Your task to perform on an android device: Add "lenovo thinkpad" to the cart on target.com Image 0: 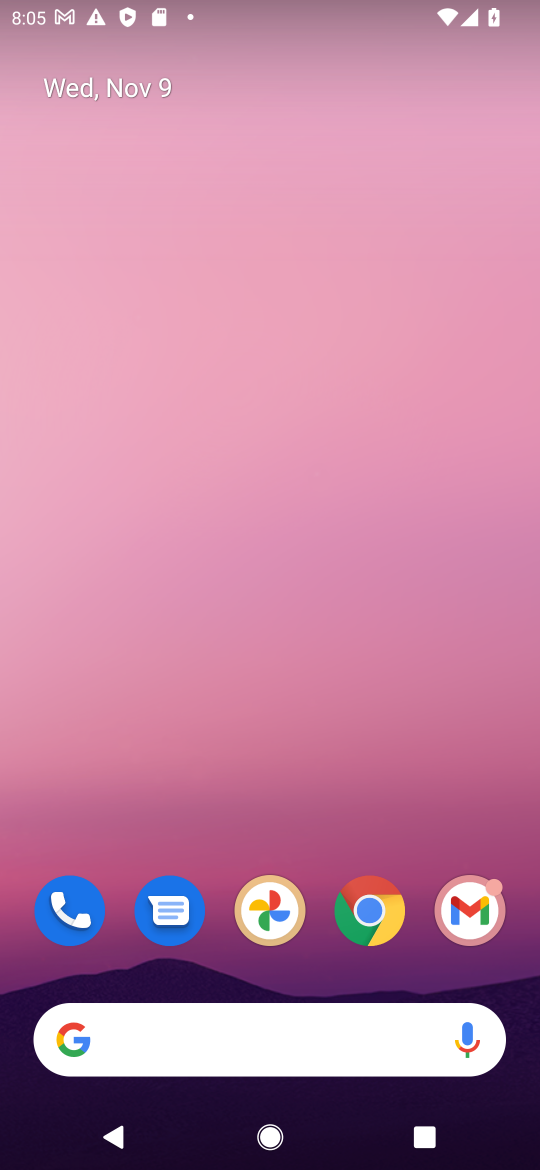
Step 0: click (373, 918)
Your task to perform on an android device: Add "lenovo thinkpad" to the cart on target.com Image 1: 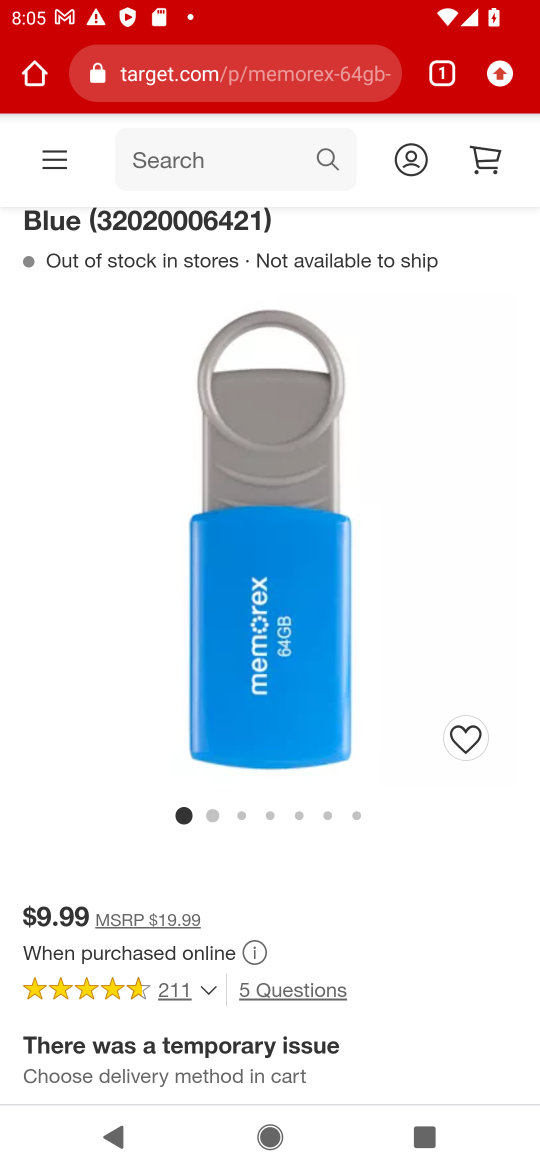
Step 1: click (326, 163)
Your task to perform on an android device: Add "lenovo thinkpad" to the cart on target.com Image 2: 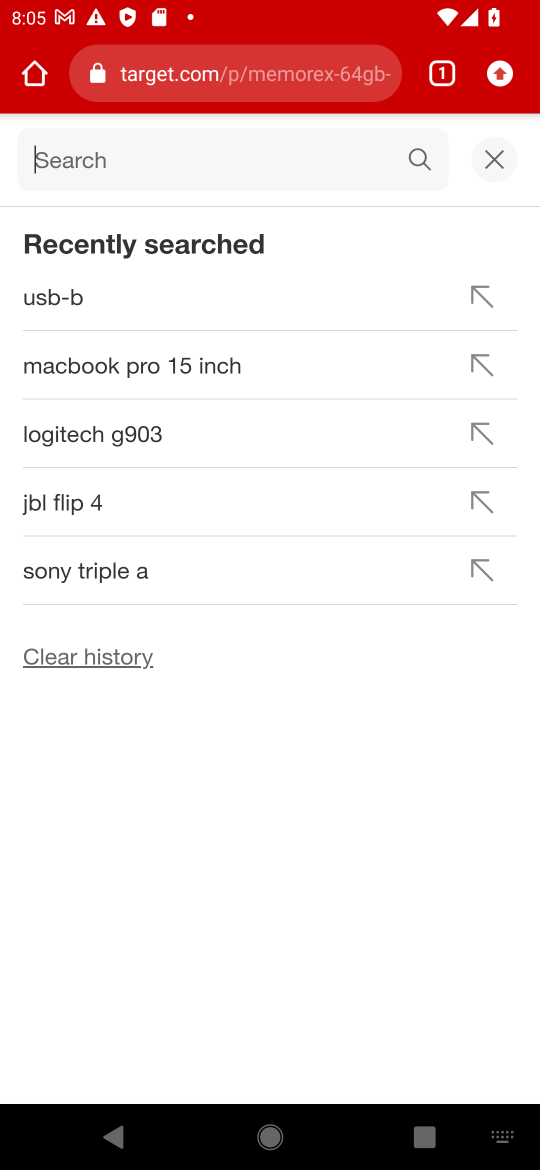
Step 2: type "lenovo thinkpad"
Your task to perform on an android device: Add "lenovo thinkpad" to the cart on target.com Image 3: 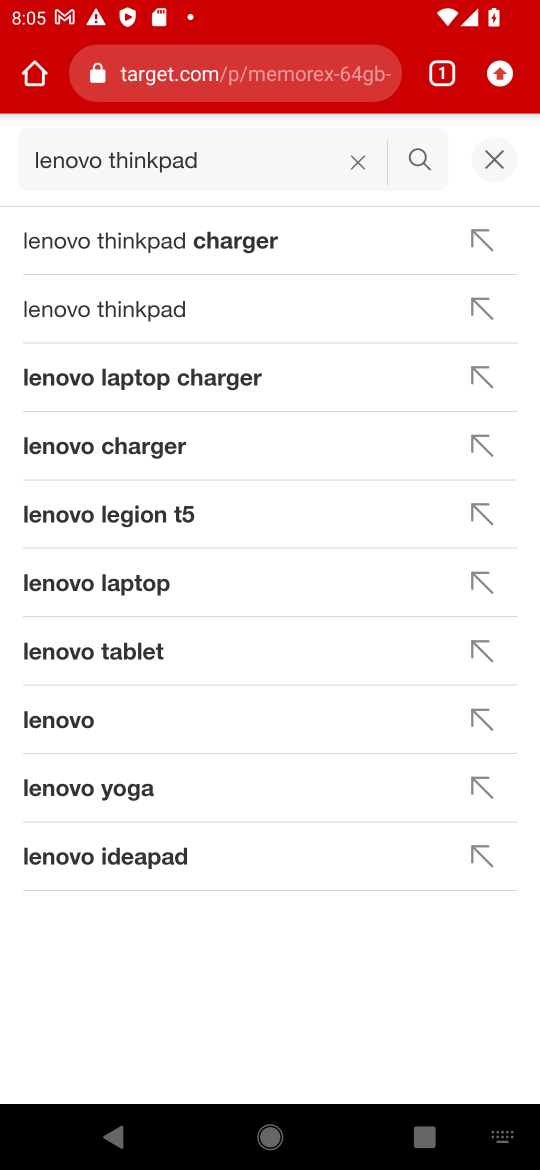
Step 3: click (137, 318)
Your task to perform on an android device: Add "lenovo thinkpad" to the cart on target.com Image 4: 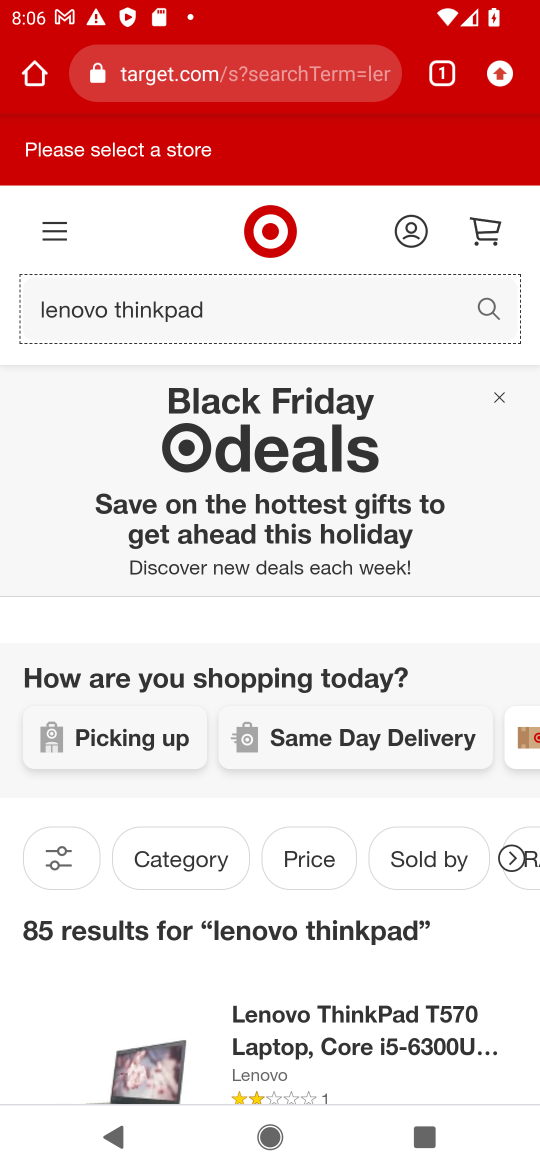
Step 4: drag from (174, 831) to (183, 435)
Your task to perform on an android device: Add "lenovo thinkpad" to the cart on target.com Image 5: 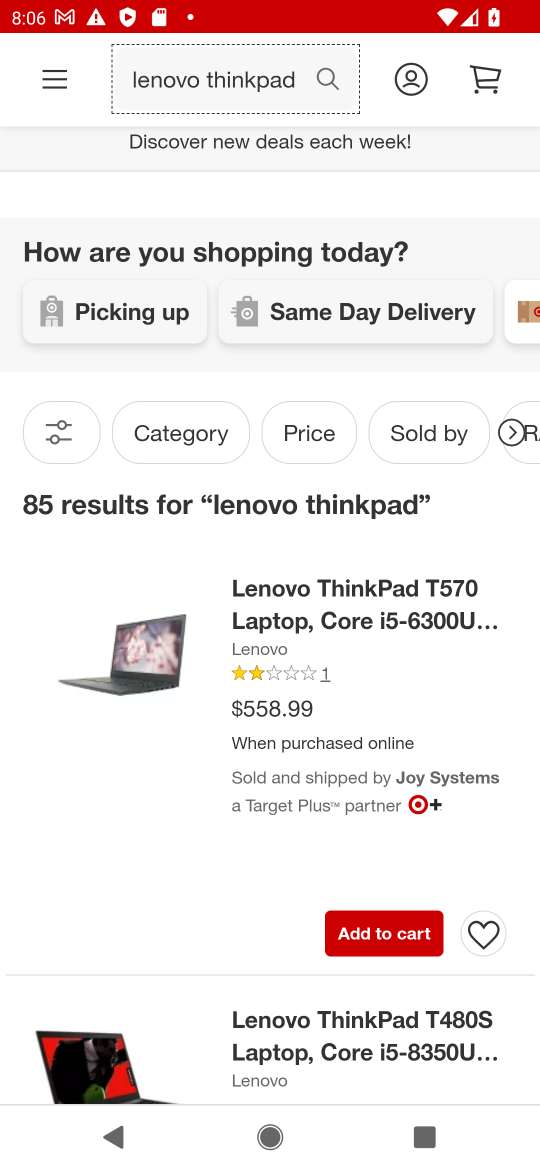
Step 5: click (373, 934)
Your task to perform on an android device: Add "lenovo thinkpad" to the cart on target.com Image 6: 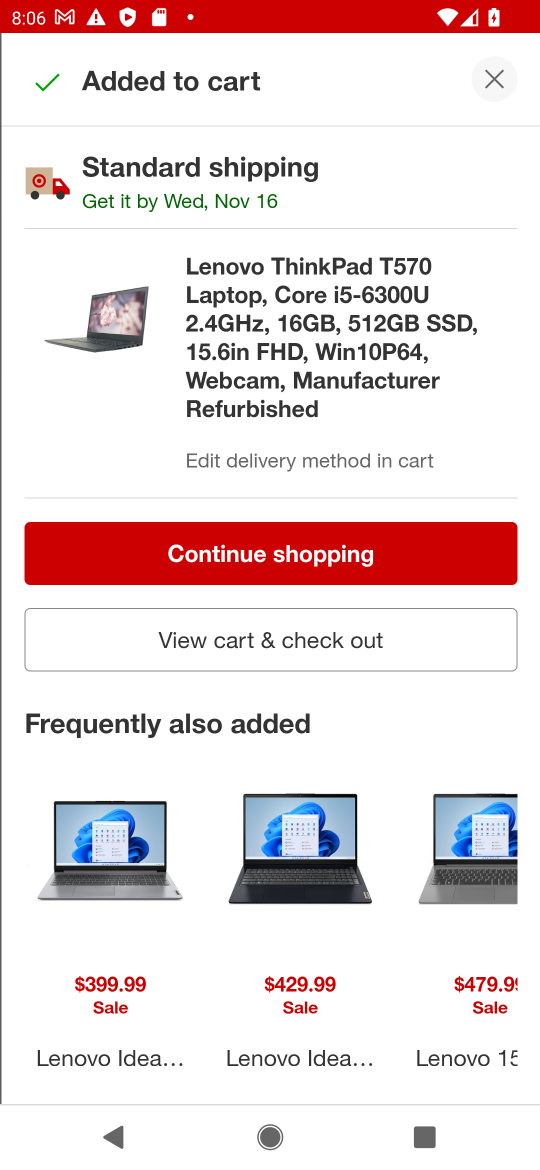
Step 6: task complete